Your task to perform on an android device: turn off smart reply in the gmail app Image 0: 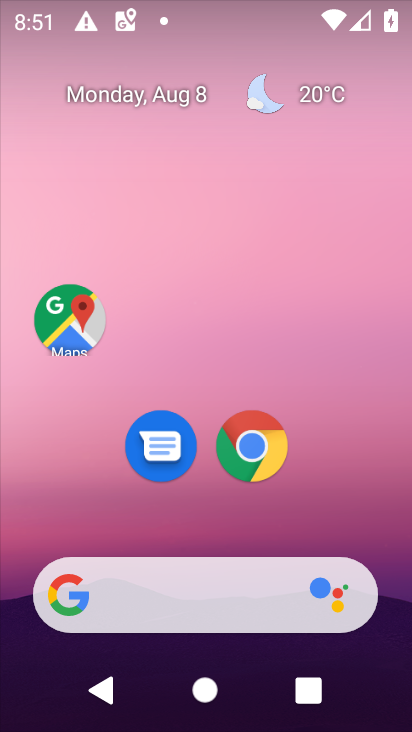
Step 0: drag from (402, 630) to (350, 105)
Your task to perform on an android device: turn off smart reply in the gmail app Image 1: 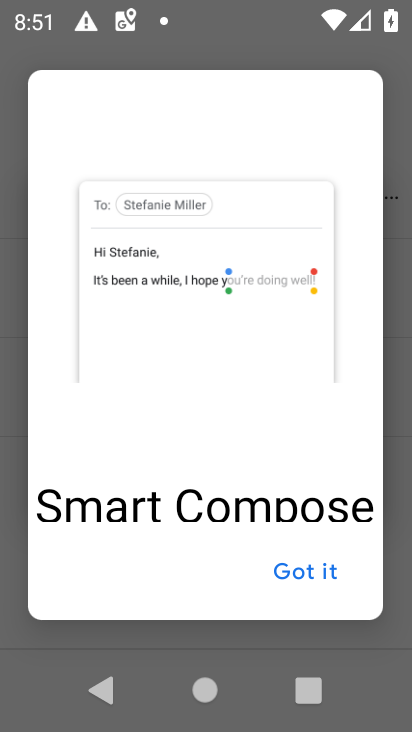
Step 1: press home button
Your task to perform on an android device: turn off smart reply in the gmail app Image 2: 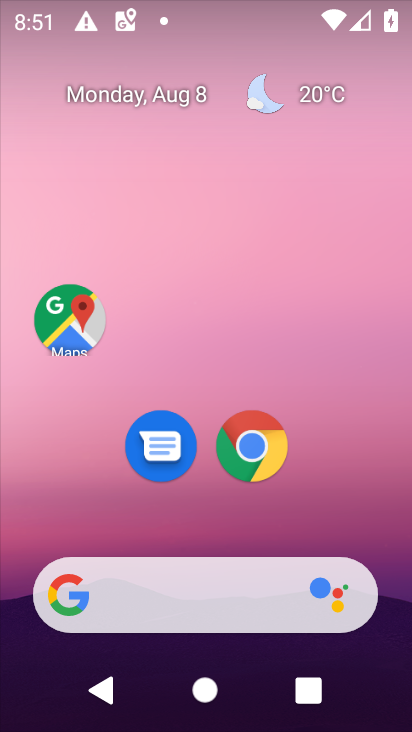
Step 2: drag from (387, 613) to (389, 102)
Your task to perform on an android device: turn off smart reply in the gmail app Image 3: 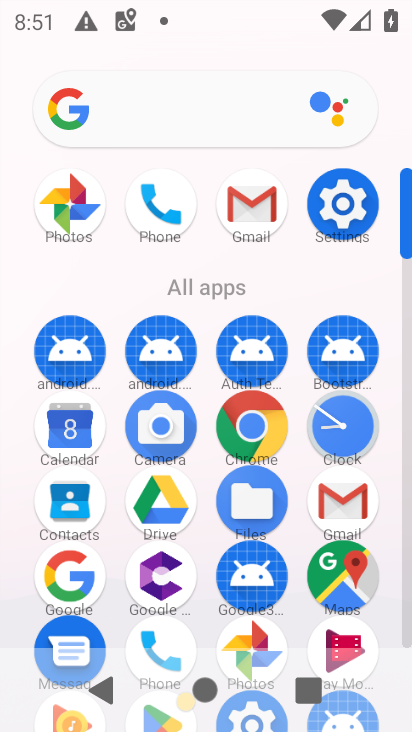
Step 3: click (342, 501)
Your task to perform on an android device: turn off smart reply in the gmail app Image 4: 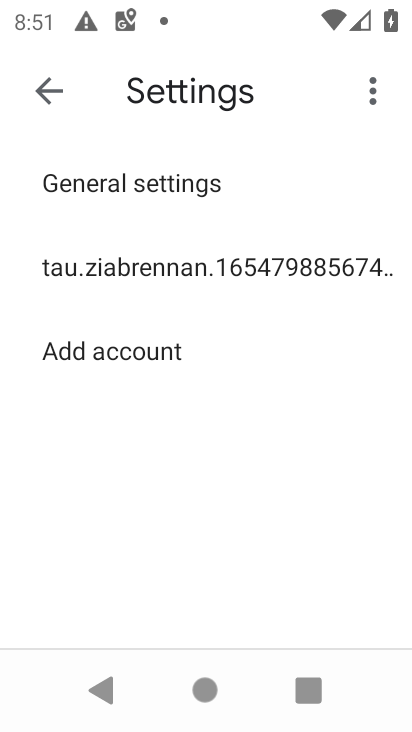
Step 4: click (164, 283)
Your task to perform on an android device: turn off smart reply in the gmail app Image 5: 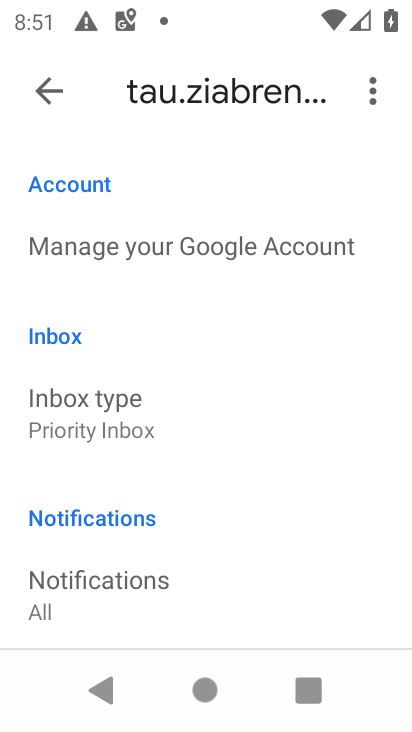
Step 5: drag from (250, 580) to (258, 110)
Your task to perform on an android device: turn off smart reply in the gmail app Image 6: 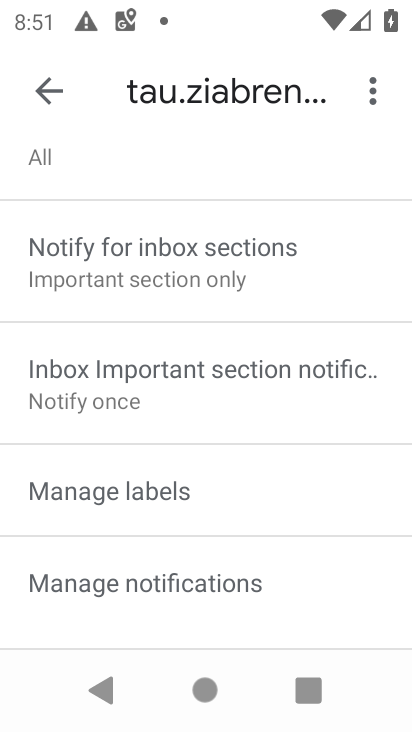
Step 6: drag from (262, 601) to (267, 128)
Your task to perform on an android device: turn off smart reply in the gmail app Image 7: 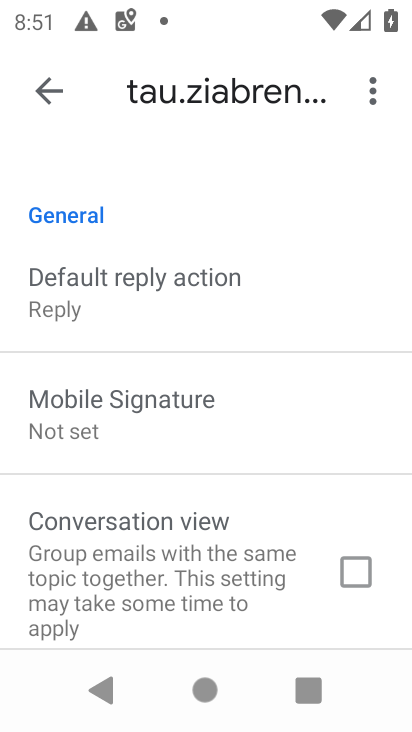
Step 7: drag from (260, 637) to (211, 201)
Your task to perform on an android device: turn off smart reply in the gmail app Image 8: 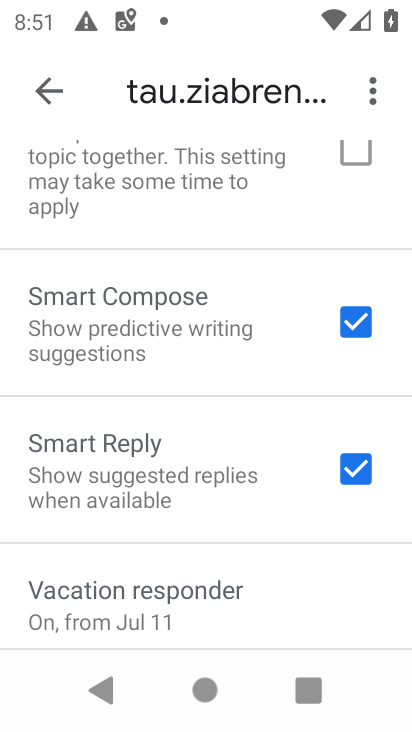
Step 8: click (358, 471)
Your task to perform on an android device: turn off smart reply in the gmail app Image 9: 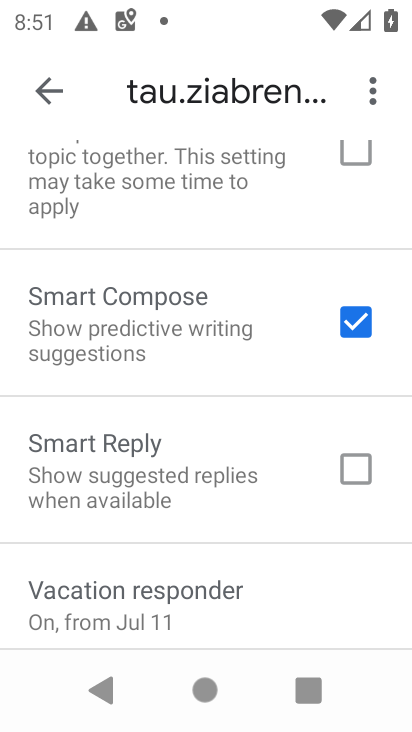
Step 9: task complete